Your task to perform on an android device: Open Google Maps Image 0: 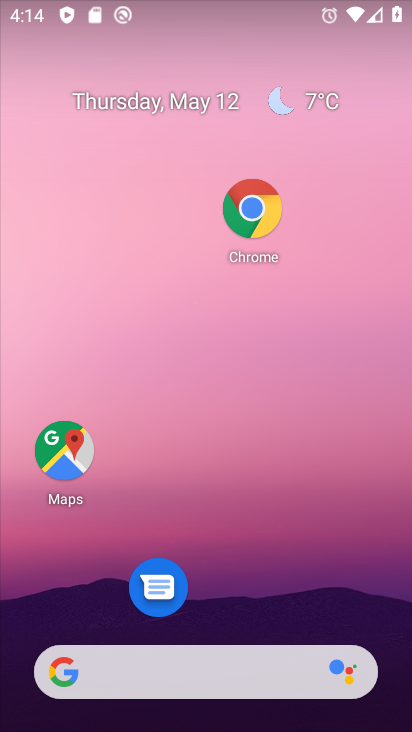
Step 0: click (251, 583)
Your task to perform on an android device: Open Google Maps Image 1: 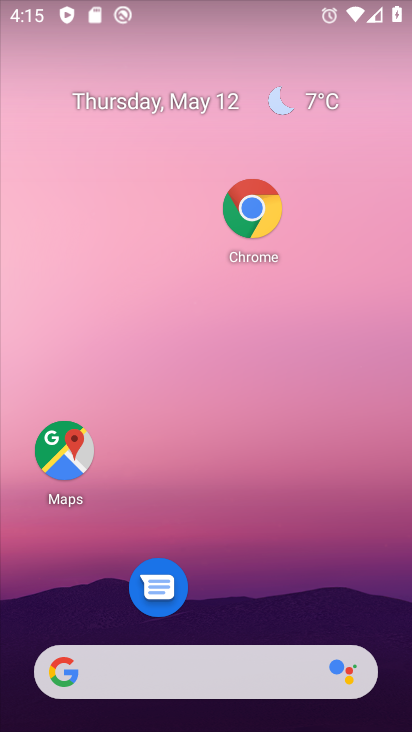
Step 1: click (57, 466)
Your task to perform on an android device: Open Google Maps Image 2: 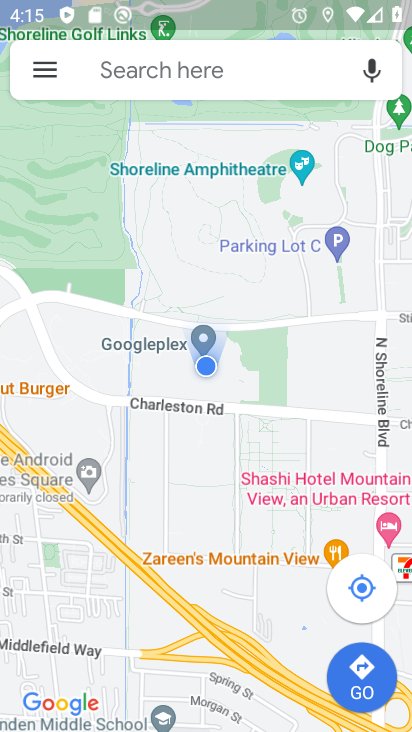
Step 2: task complete